Your task to perform on an android device: turn off picture-in-picture Image 0: 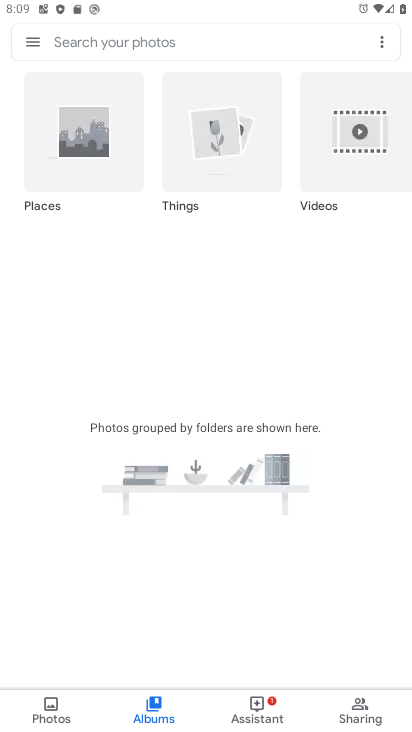
Step 0: press home button
Your task to perform on an android device: turn off picture-in-picture Image 1: 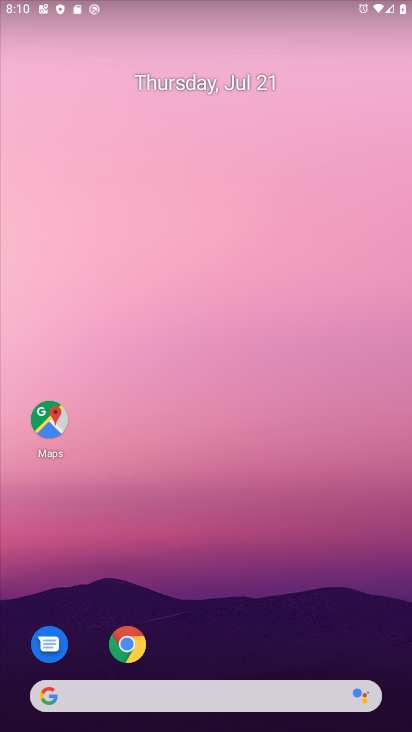
Step 1: drag from (209, 614) to (215, 260)
Your task to perform on an android device: turn off picture-in-picture Image 2: 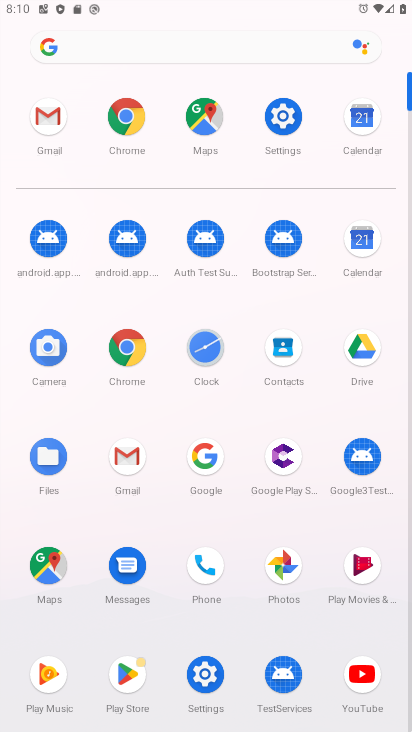
Step 2: click (296, 113)
Your task to perform on an android device: turn off picture-in-picture Image 3: 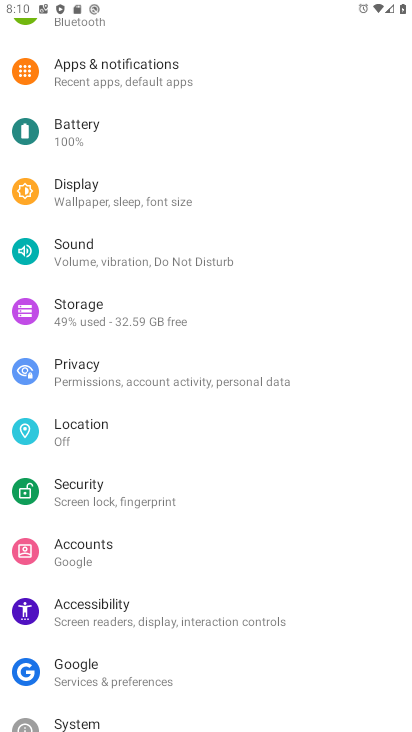
Step 3: click (120, 84)
Your task to perform on an android device: turn off picture-in-picture Image 4: 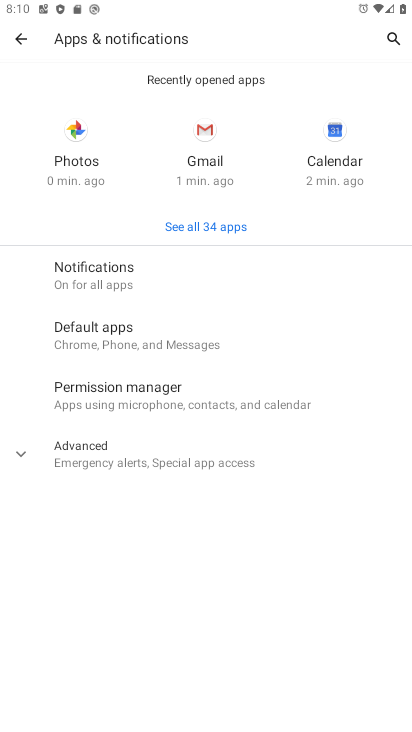
Step 4: click (145, 451)
Your task to perform on an android device: turn off picture-in-picture Image 5: 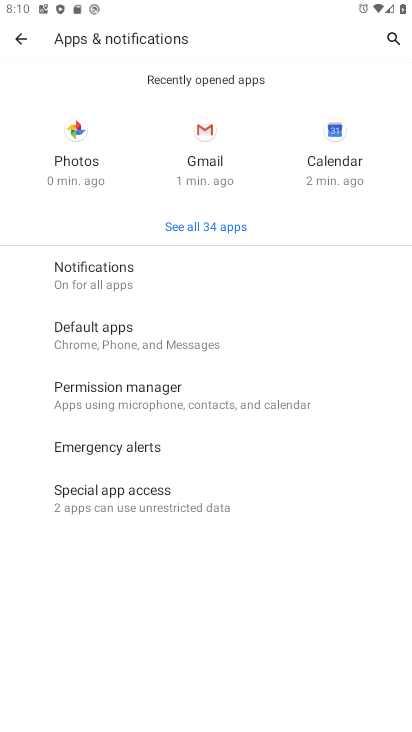
Step 5: click (154, 502)
Your task to perform on an android device: turn off picture-in-picture Image 6: 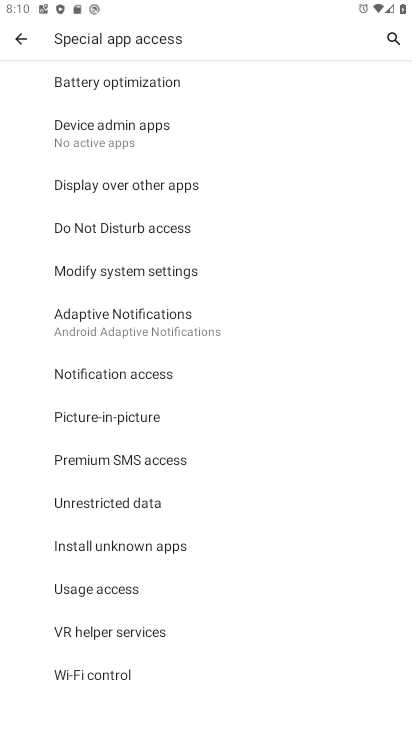
Step 6: click (126, 414)
Your task to perform on an android device: turn off picture-in-picture Image 7: 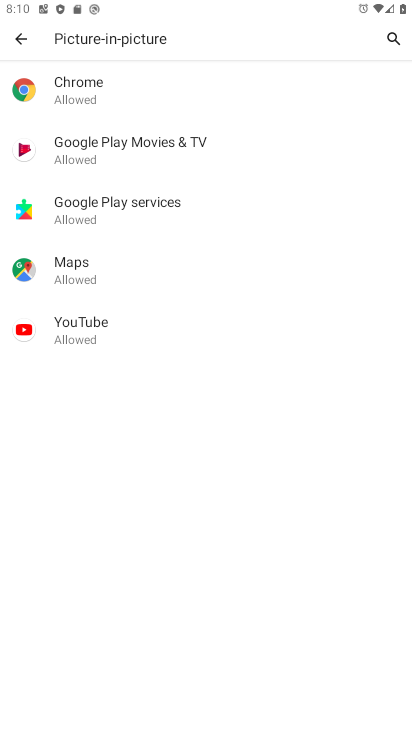
Step 7: click (96, 335)
Your task to perform on an android device: turn off picture-in-picture Image 8: 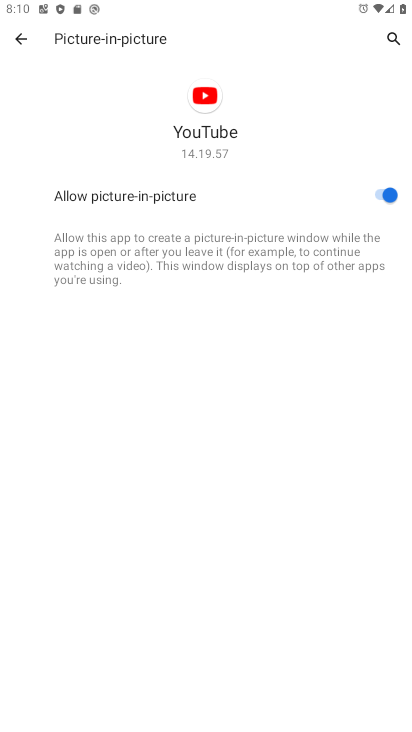
Step 8: click (379, 196)
Your task to perform on an android device: turn off picture-in-picture Image 9: 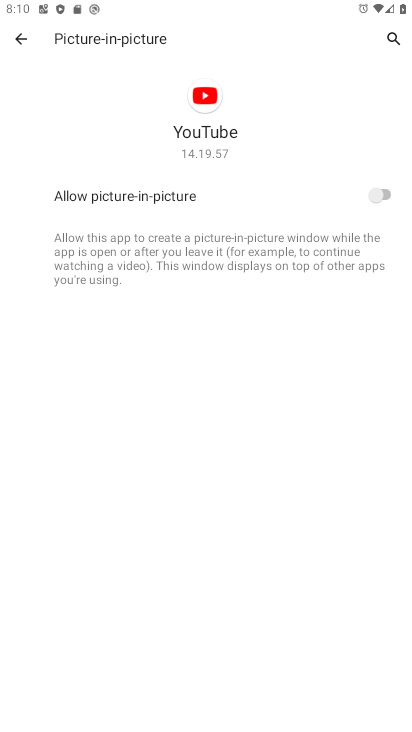
Step 9: task complete